Your task to perform on an android device: open wifi settings Image 0: 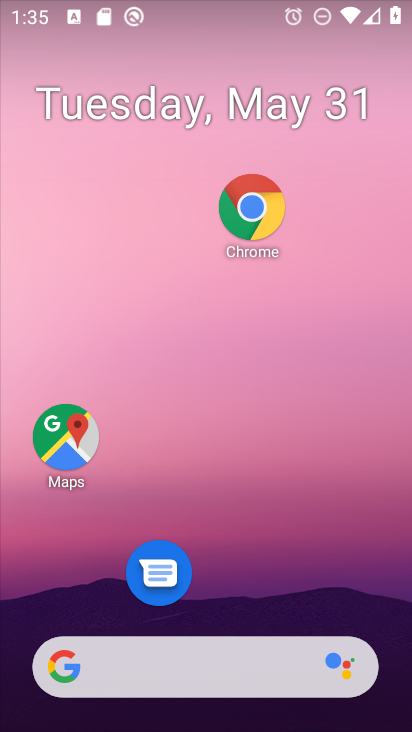
Step 0: drag from (231, 559) to (249, 206)
Your task to perform on an android device: open wifi settings Image 1: 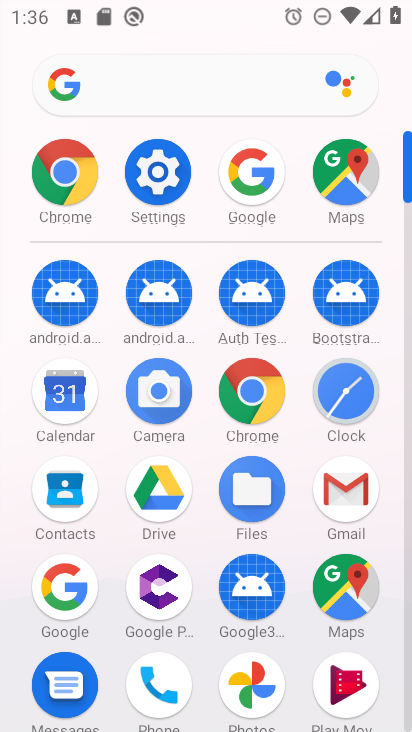
Step 1: click (154, 201)
Your task to perform on an android device: open wifi settings Image 2: 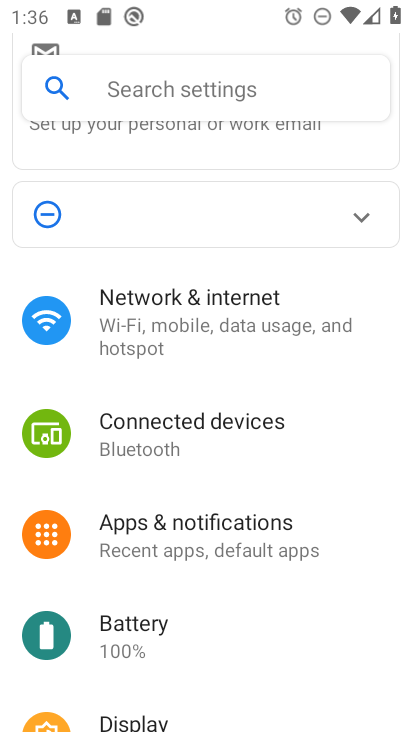
Step 2: click (235, 328)
Your task to perform on an android device: open wifi settings Image 3: 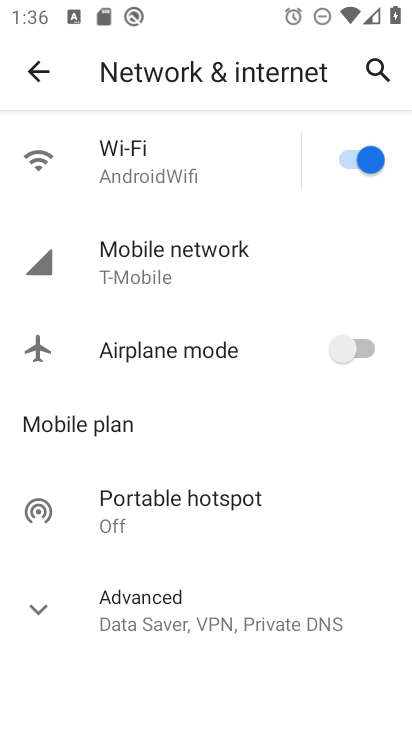
Step 3: click (188, 171)
Your task to perform on an android device: open wifi settings Image 4: 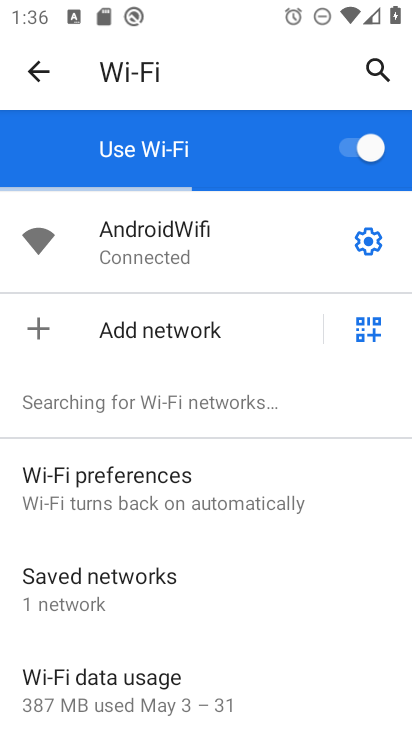
Step 4: task complete